Your task to perform on an android device: find which apps use the phone's location Image 0: 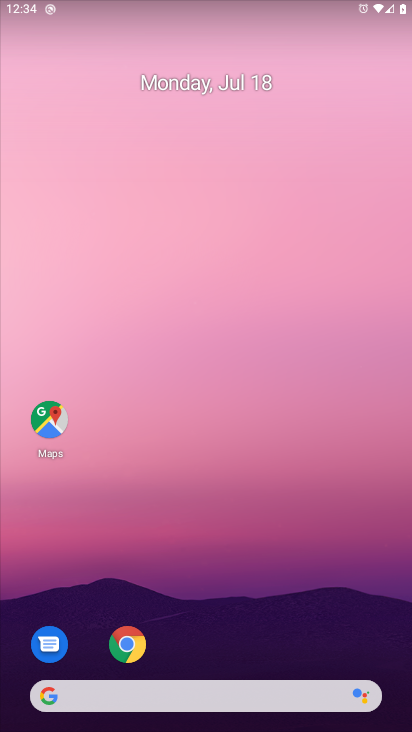
Step 0: press home button
Your task to perform on an android device: find which apps use the phone's location Image 1: 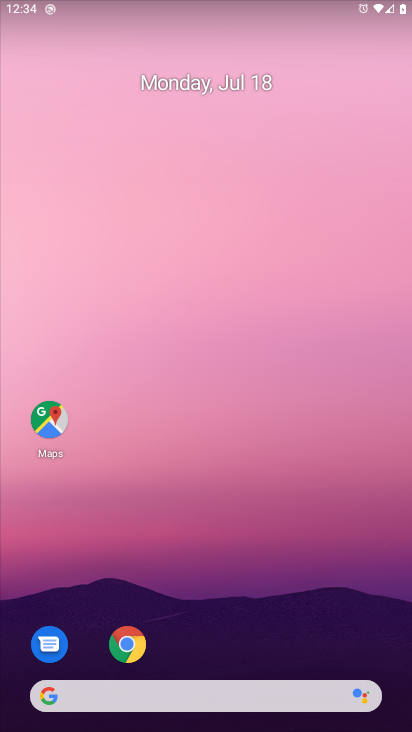
Step 1: drag from (340, 605) to (389, 85)
Your task to perform on an android device: find which apps use the phone's location Image 2: 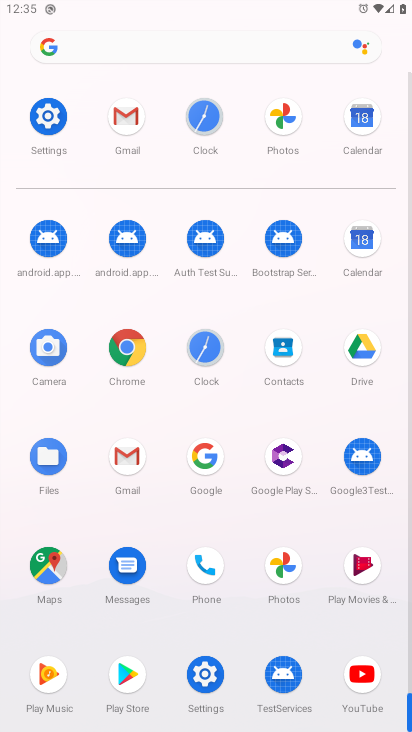
Step 2: click (49, 114)
Your task to perform on an android device: find which apps use the phone's location Image 3: 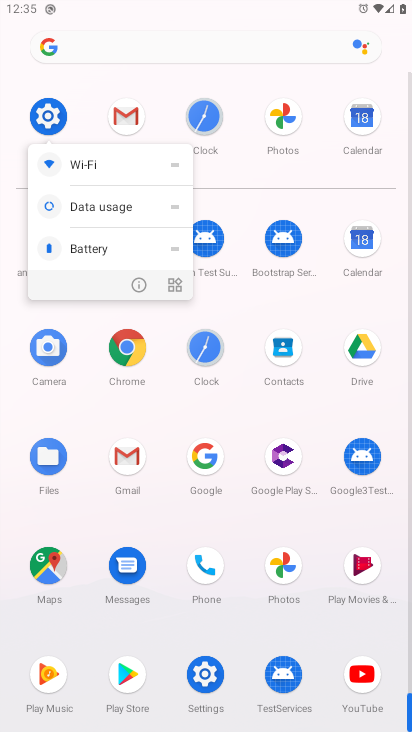
Step 3: click (40, 112)
Your task to perform on an android device: find which apps use the phone's location Image 4: 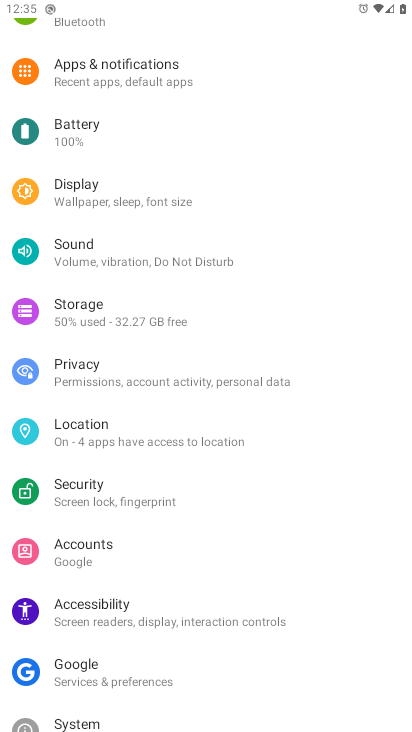
Step 4: click (95, 436)
Your task to perform on an android device: find which apps use the phone's location Image 5: 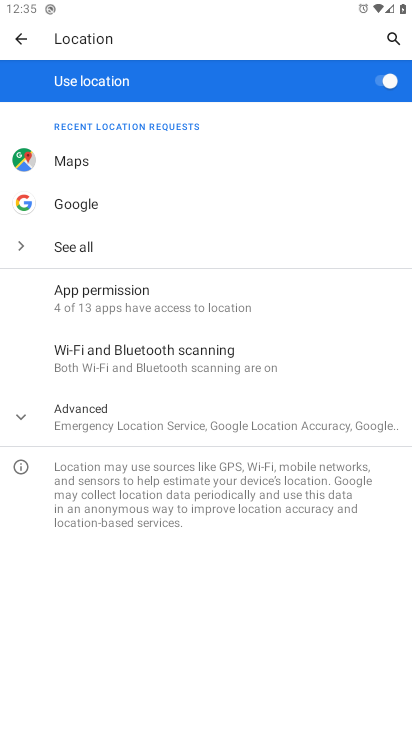
Step 5: click (15, 418)
Your task to perform on an android device: find which apps use the phone's location Image 6: 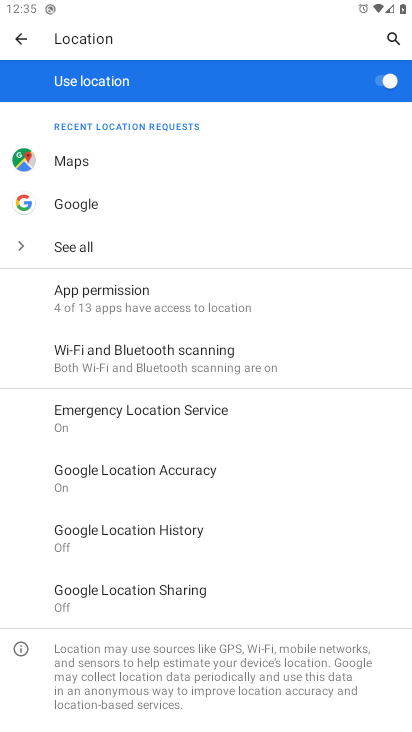
Step 6: click (154, 286)
Your task to perform on an android device: find which apps use the phone's location Image 7: 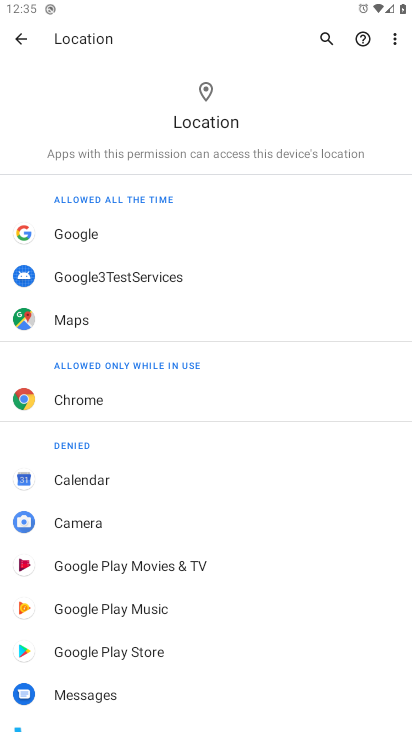
Step 7: task complete